Your task to perform on an android device: Open wifi settings Image 0: 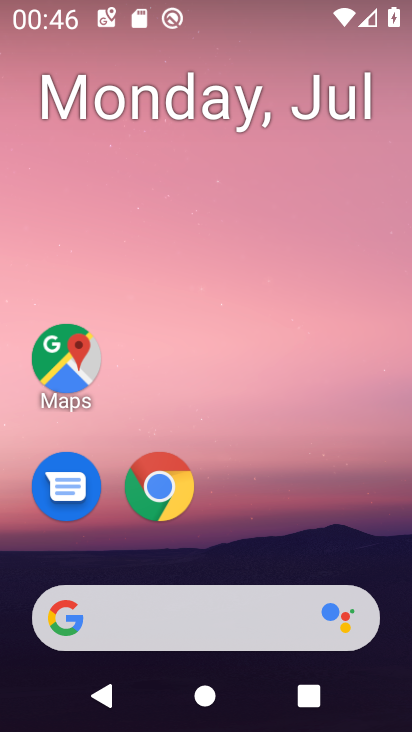
Step 0: press home button
Your task to perform on an android device: Open wifi settings Image 1: 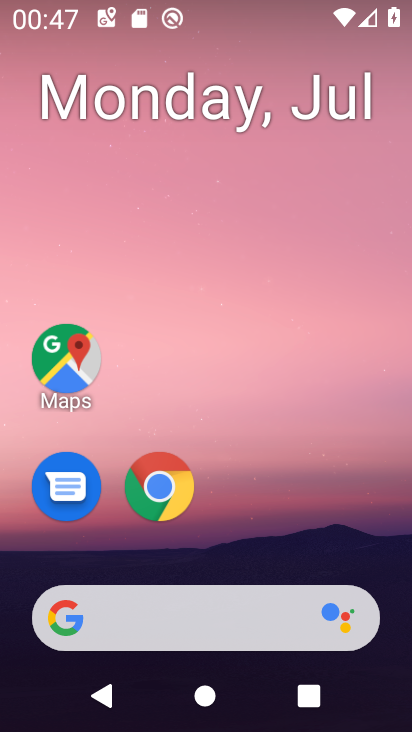
Step 1: drag from (335, 510) to (321, 86)
Your task to perform on an android device: Open wifi settings Image 2: 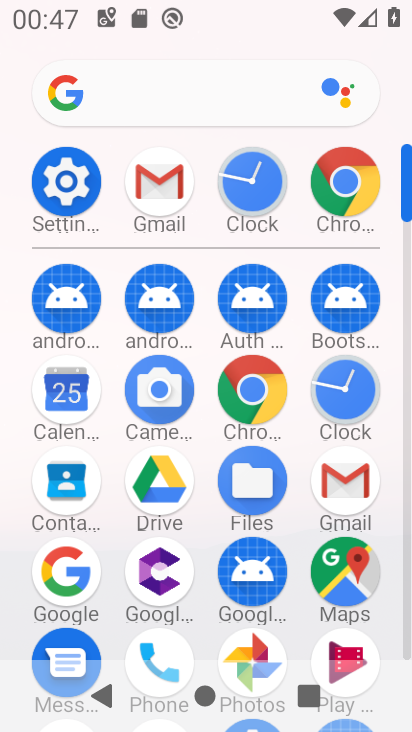
Step 2: click (75, 201)
Your task to perform on an android device: Open wifi settings Image 3: 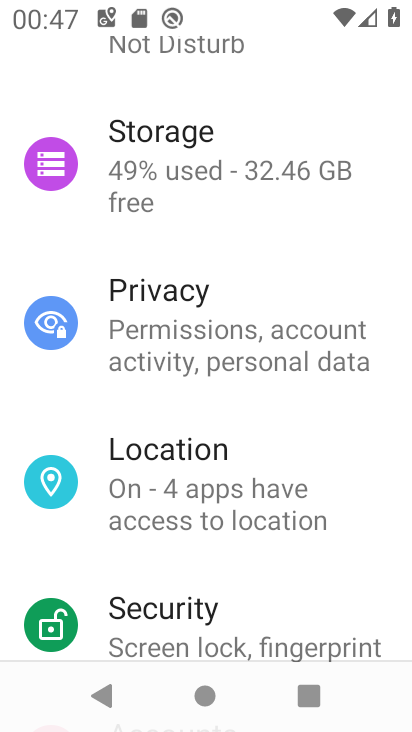
Step 3: drag from (351, 571) to (340, 410)
Your task to perform on an android device: Open wifi settings Image 4: 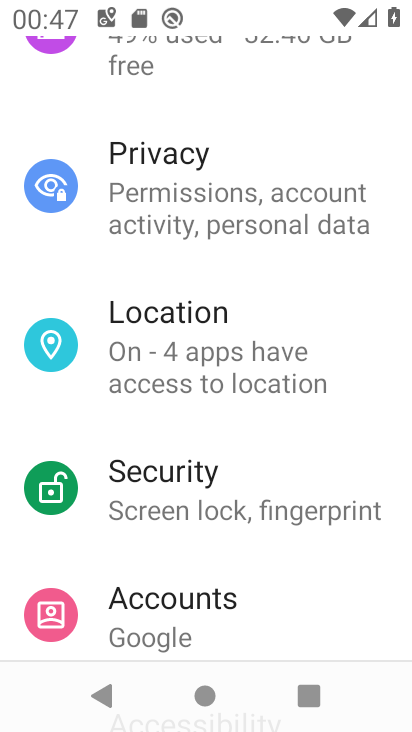
Step 4: drag from (319, 554) to (323, 417)
Your task to perform on an android device: Open wifi settings Image 5: 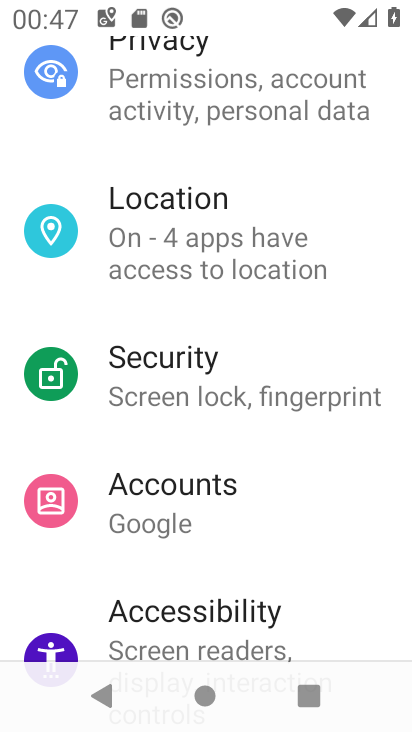
Step 5: drag from (337, 528) to (334, 440)
Your task to perform on an android device: Open wifi settings Image 6: 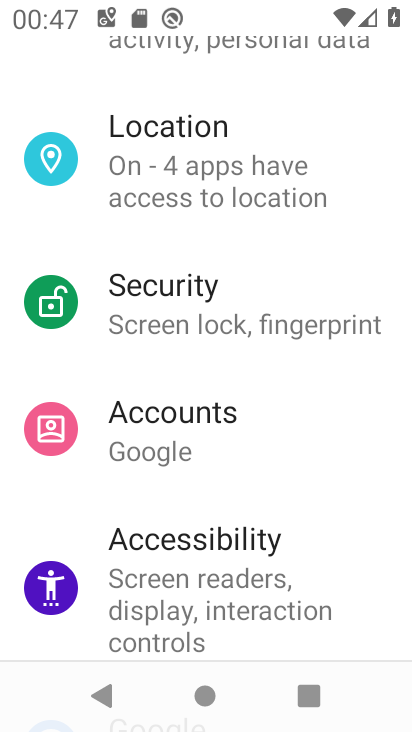
Step 6: drag from (348, 560) to (347, 424)
Your task to perform on an android device: Open wifi settings Image 7: 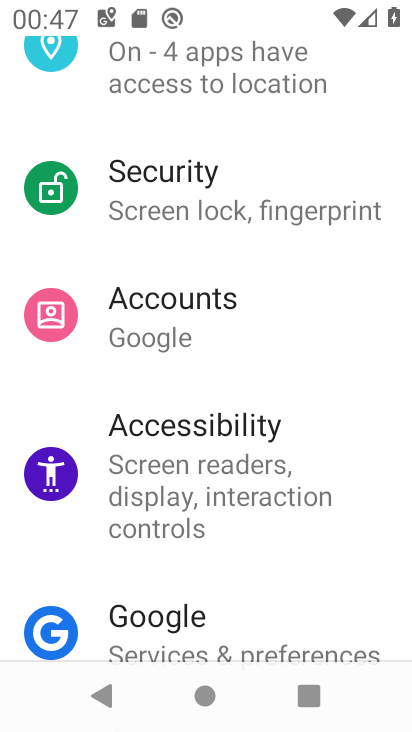
Step 7: drag from (341, 278) to (354, 427)
Your task to perform on an android device: Open wifi settings Image 8: 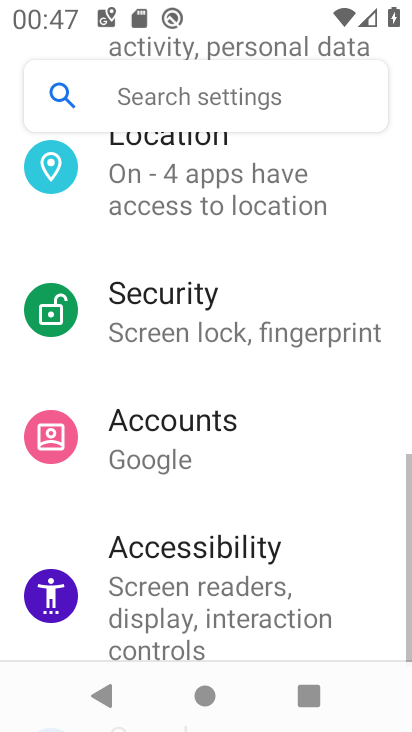
Step 8: drag from (363, 228) to (358, 368)
Your task to perform on an android device: Open wifi settings Image 9: 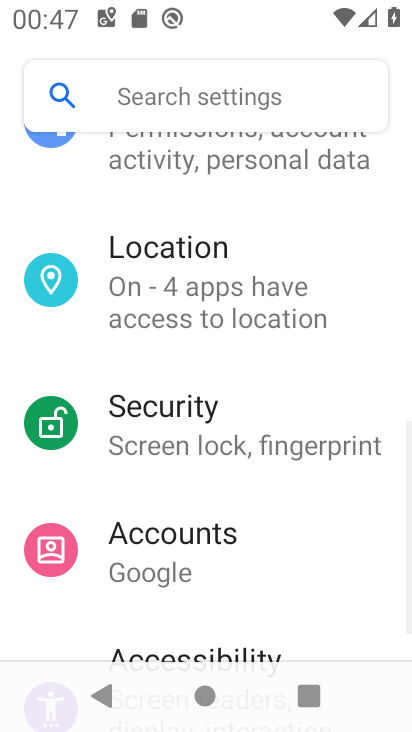
Step 9: drag from (357, 230) to (356, 365)
Your task to perform on an android device: Open wifi settings Image 10: 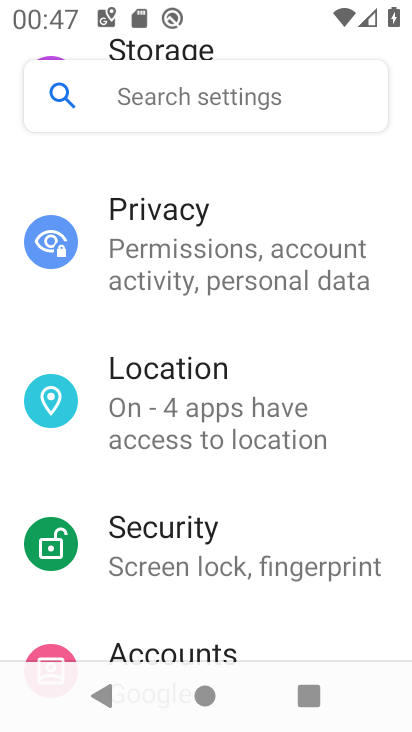
Step 10: drag from (346, 172) to (349, 381)
Your task to perform on an android device: Open wifi settings Image 11: 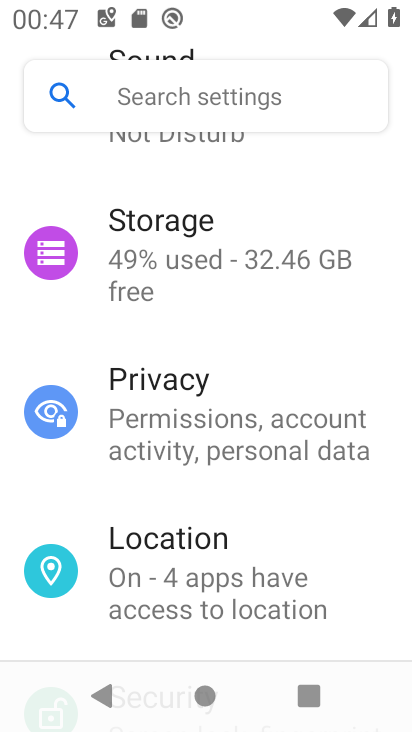
Step 11: drag from (357, 171) to (365, 335)
Your task to perform on an android device: Open wifi settings Image 12: 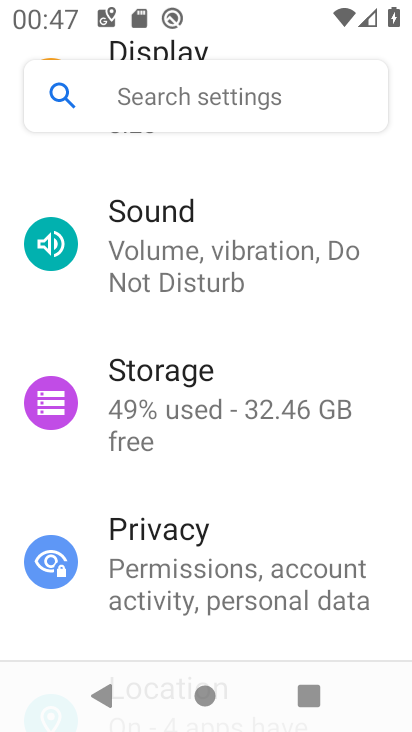
Step 12: drag from (355, 164) to (353, 327)
Your task to perform on an android device: Open wifi settings Image 13: 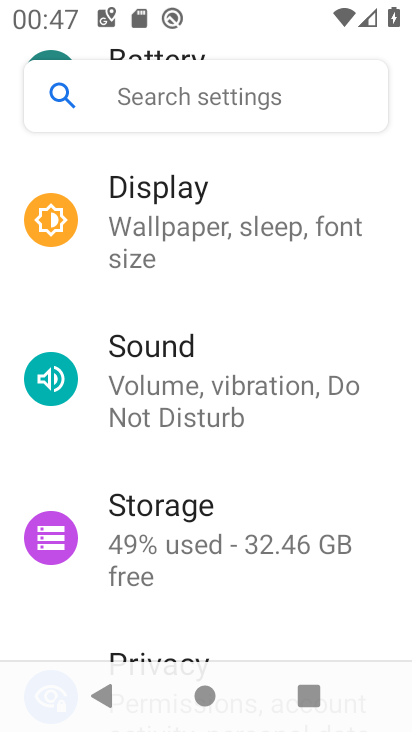
Step 13: drag from (358, 170) to (357, 304)
Your task to perform on an android device: Open wifi settings Image 14: 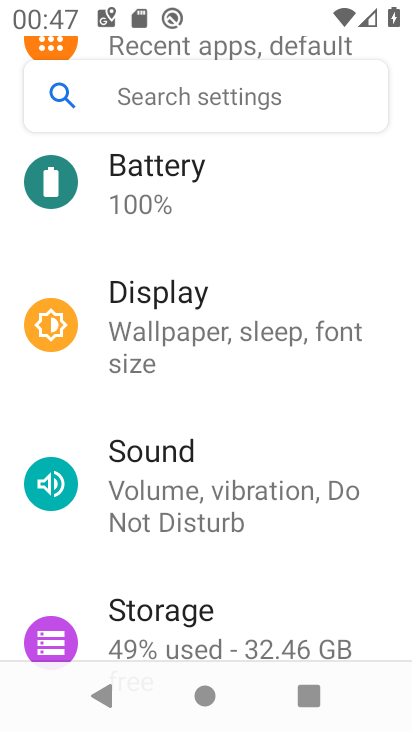
Step 14: drag from (357, 206) to (362, 351)
Your task to perform on an android device: Open wifi settings Image 15: 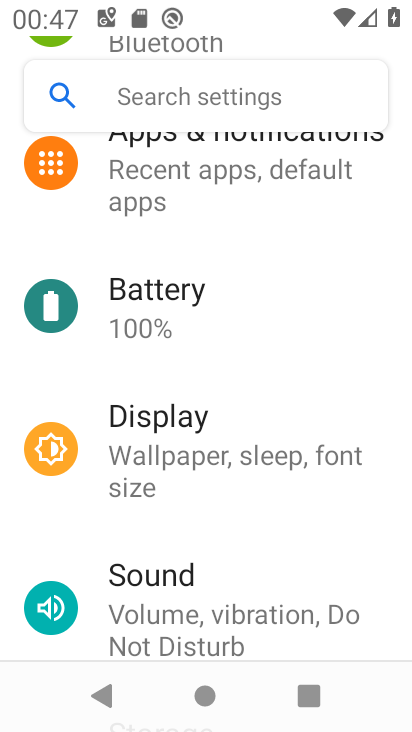
Step 15: drag from (351, 214) to (348, 341)
Your task to perform on an android device: Open wifi settings Image 16: 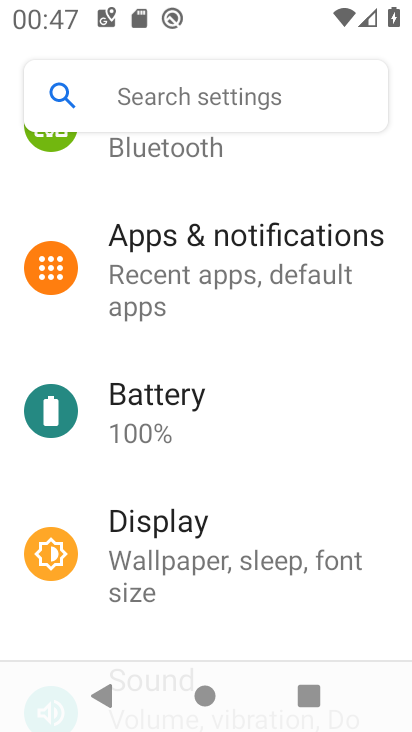
Step 16: drag from (348, 181) to (350, 351)
Your task to perform on an android device: Open wifi settings Image 17: 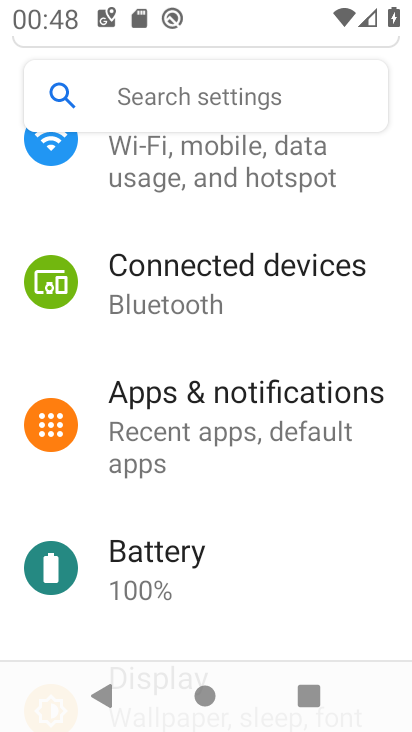
Step 17: drag from (357, 166) to (354, 333)
Your task to perform on an android device: Open wifi settings Image 18: 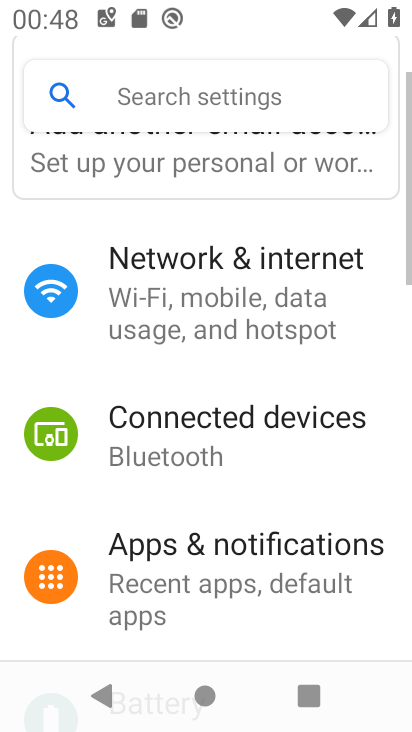
Step 18: click (254, 303)
Your task to perform on an android device: Open wifi settings Image 19: 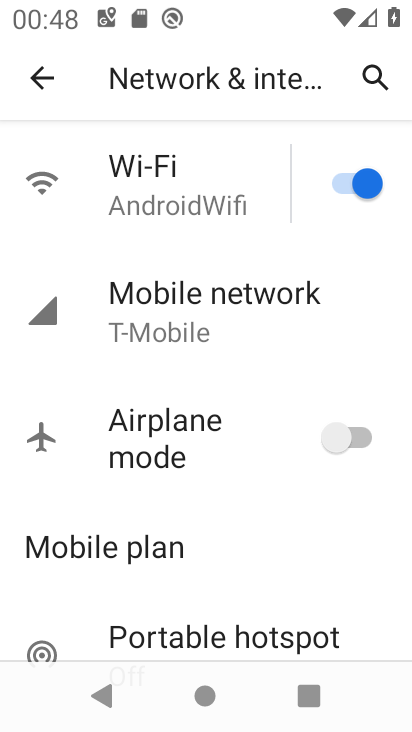
Step 19: click (201, 202)
Your task to perform on an android device: Open wifi settings Image 20: 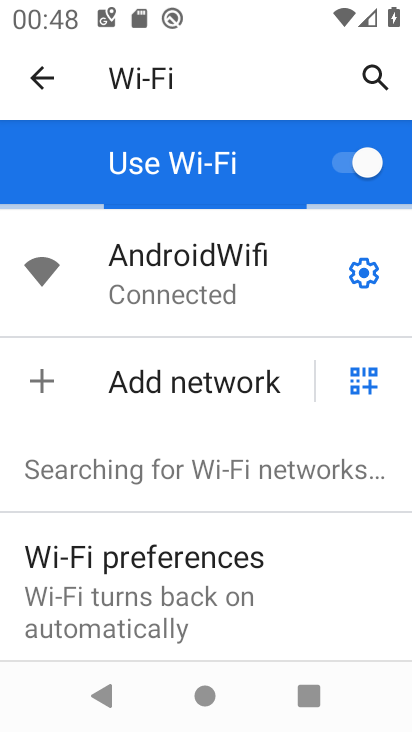
Step 20: task complete